Your task to perform on an android device: turn on data saver in the chrome app Image 0: 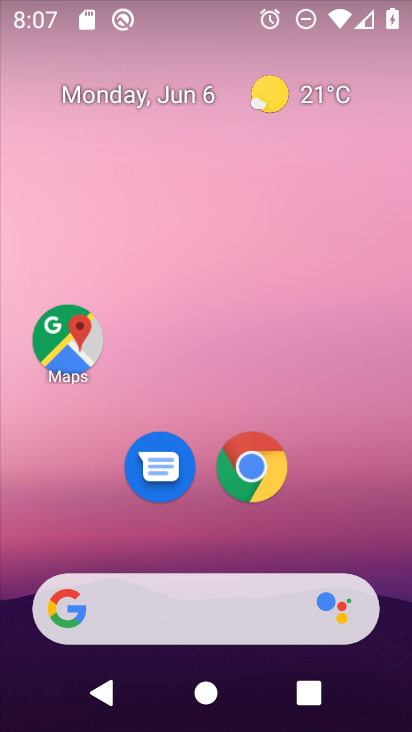
Step 0: drag from (356, 500) to (359, 199)
Your task to perform on an android device: turn on data saver in the chrome app Image 1: 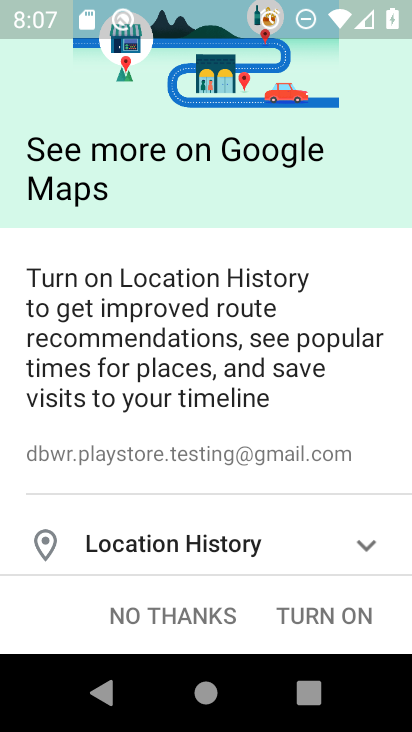
Step 1: press home button
Your task to perform on an android device: turn on data saver in the chrome app Image 2: 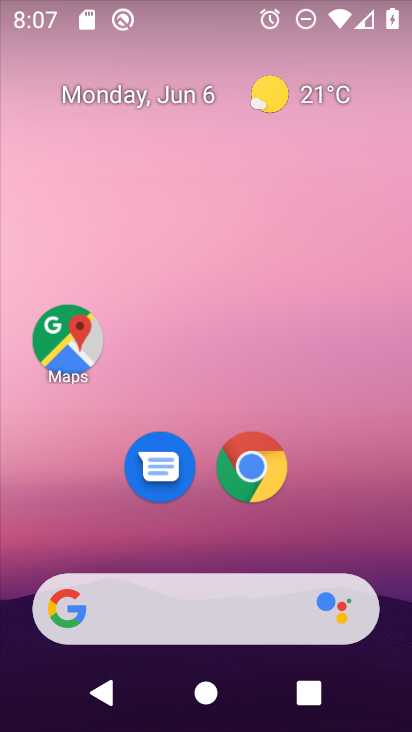
Step 2: drag from (375, 538) to (371, 125)
Your task to perform on an android device: turn on data saver in the chrome app Image 3: 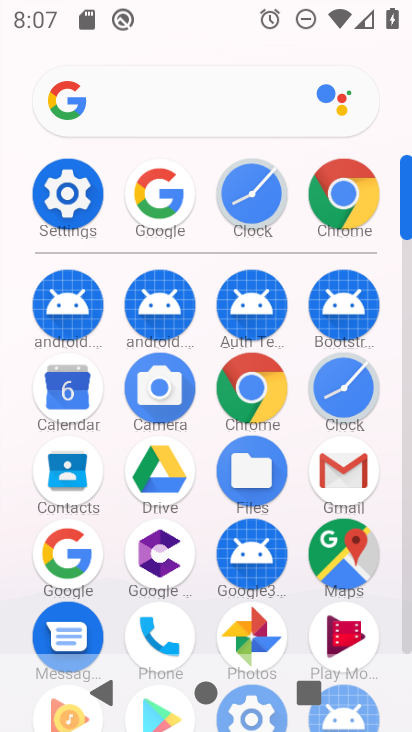
Step 3: click (265, 397)
Your task to perform on an android device: turn on data saver in the chrome app Image 4: 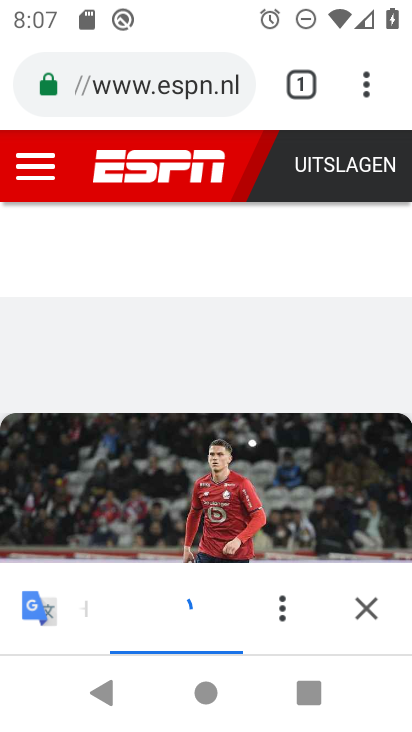
Step 4: click (366, 98)
Your task to perform on an android device: turn on data saver in the chrome app Image 5: 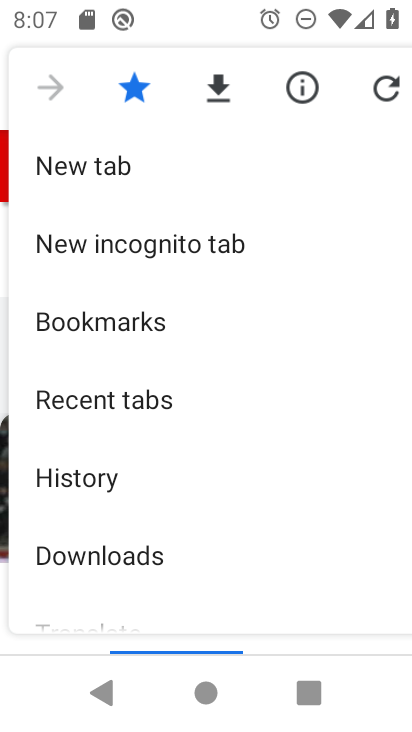
Step 5: drag from (349, 476) to (345, 376)
Your task to perform on an android device: turn on data saver in the chrome app Image 6: 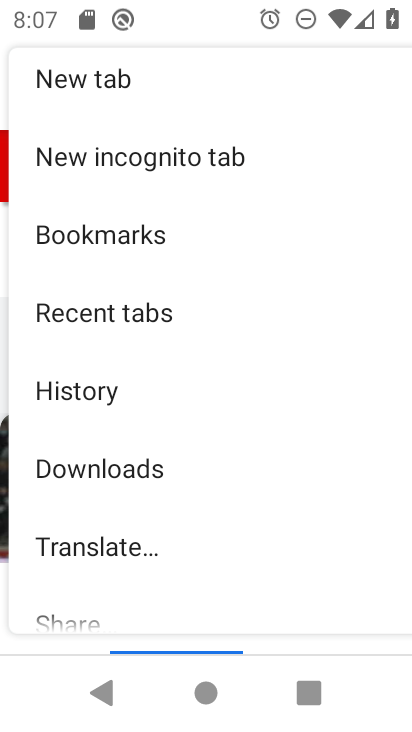
Step 6: drag from (331, 467) to (311, 365)
Your task to perform on an android device: turn on data saver in the chrome app Image 7: 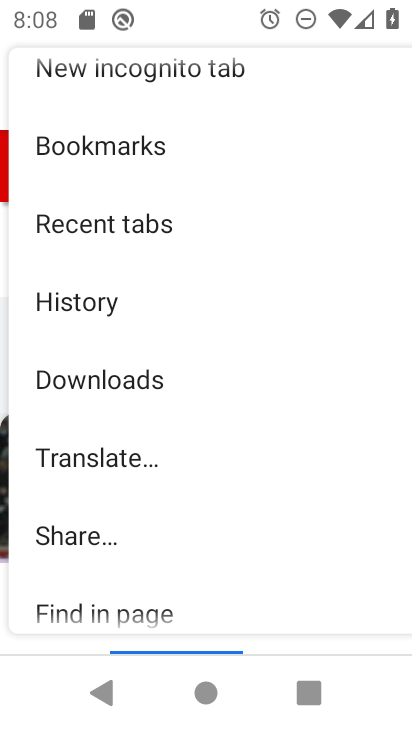
Step 7: drag from (336, 490) to (365, 311)
Your task to perform on an android device: turn on data saver in the chrome app Image 8: 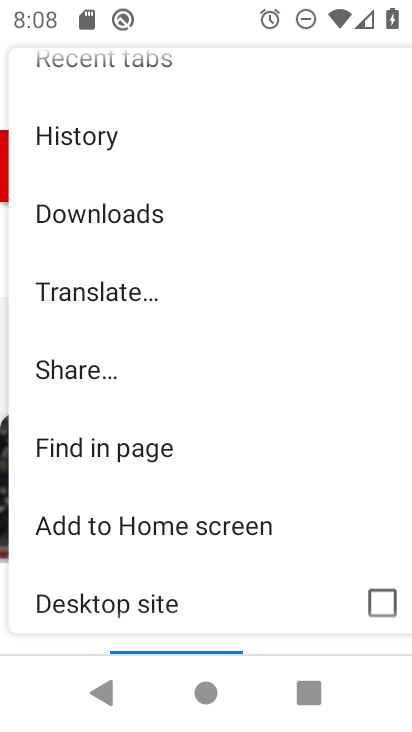
Step 8: drag from (337, 463) to (359, 305)
Your task to perform on an android device: turn on data saver in the chrome app Image 9: 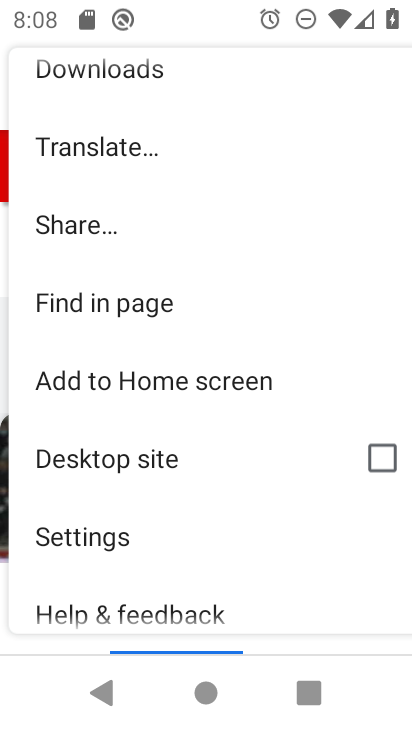
Step 9: drag from (303, 518) to (315, 368)
Your task to perform on an android device: turn on data saver in the chrome app Image 10: 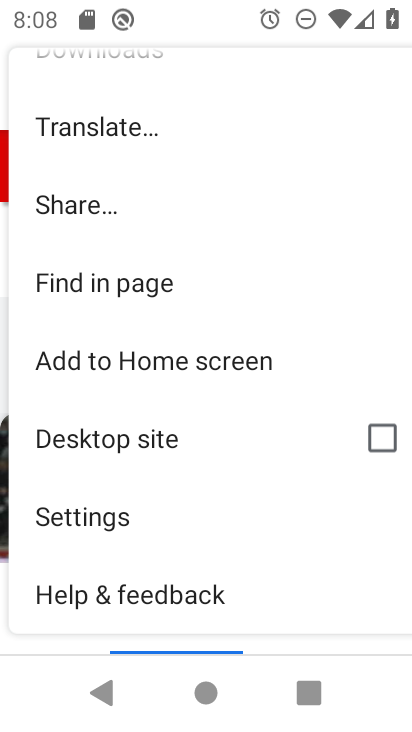
Step 10: click (182, 524)
Your task to perform on an android device: turn on data saver in the chrome app Image 11: 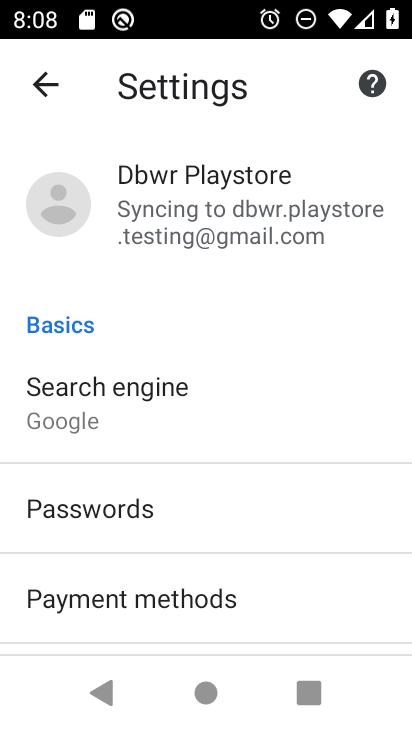
Step 11: drag from (319, 490) to (338, 360)
Your task to perform on an android device: turn on data saver in the chrome app Image 12: 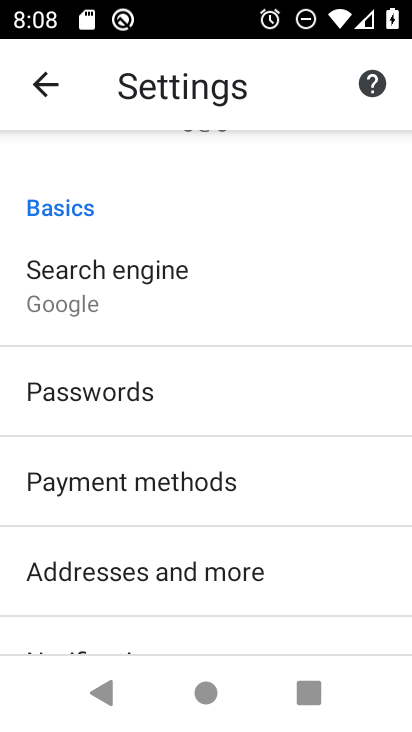
Step 12: drag from (328, 492) to (343, 326)
Your task to perform on an android device: turn on data saver in the chrome app Image 13: 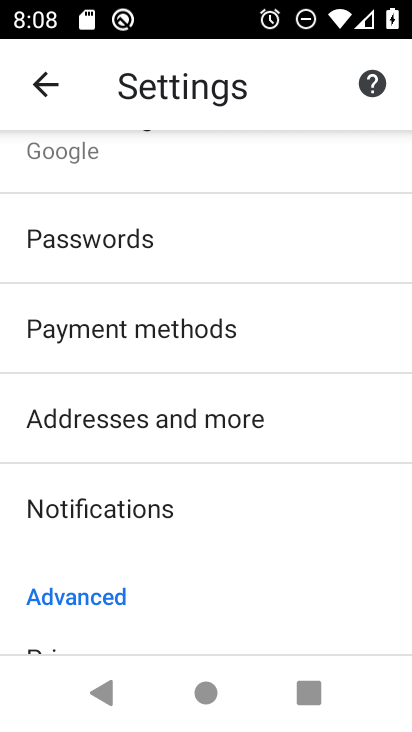
Step 13: drag from (335, 449) to (329, 360)
Your task to perform on an android device: turn on data saver in the chrome app Image 14: 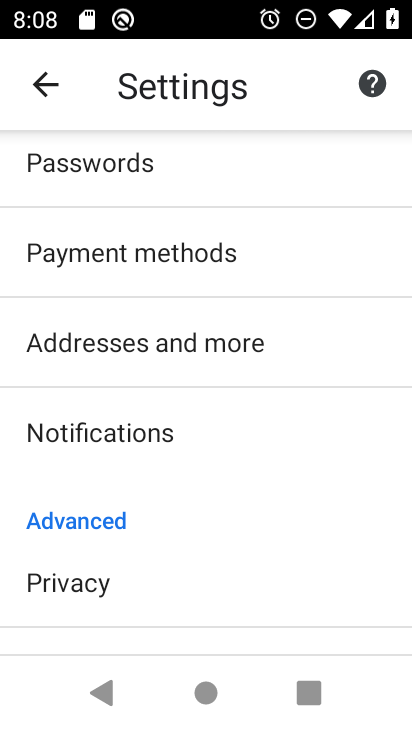
Step 14: drag from (343, 519) to (337, 388)
Your task to perform on an android device: turn on data saver in the chrome app Image 15: 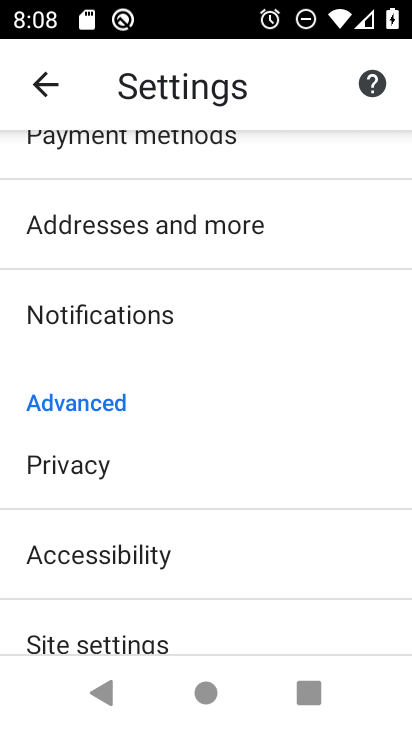
Step 15: drag from (317, 556) to (309, 388)
Your task to perform on an android device: turn on data saver in the chrome app Image 16: 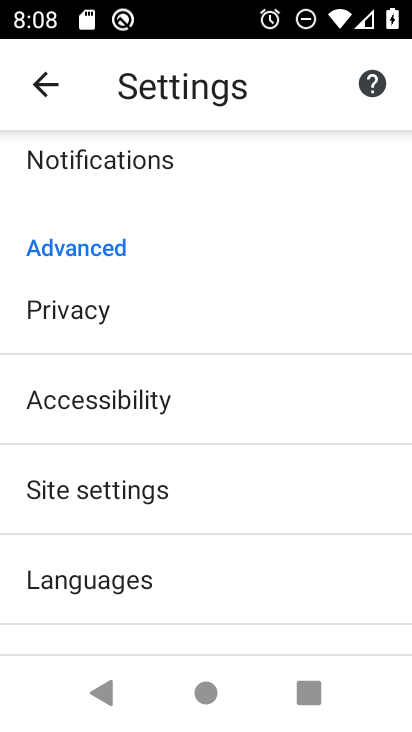
Step 16: drag from (241, 607) to (244, 364)
Your task to perform on an android device: turn on data saver in the chrome app Image 17: 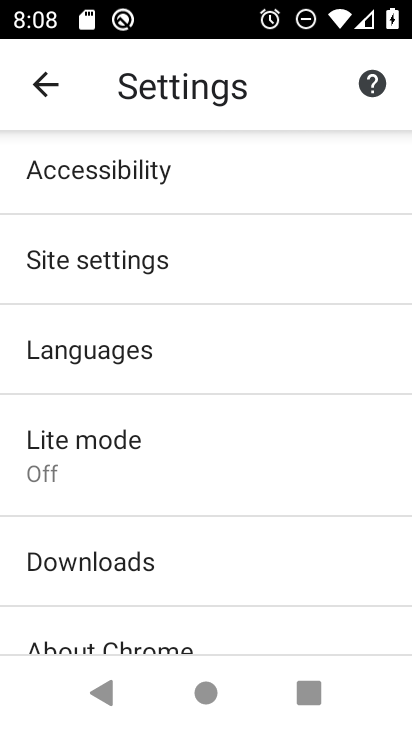
Step 17: click (181, 471)
Your task to perform on an android device: turn on data saver in the chrome app Image 18: 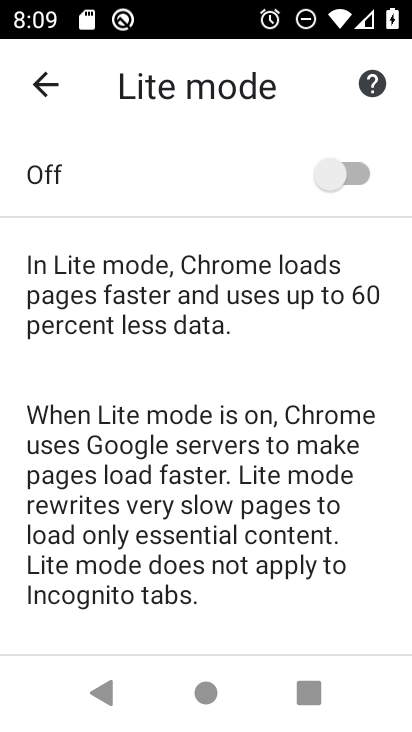
Step 18: click (335, 181)
Your task to perform on an android device: turn on data saver in the chrome app Image 19: 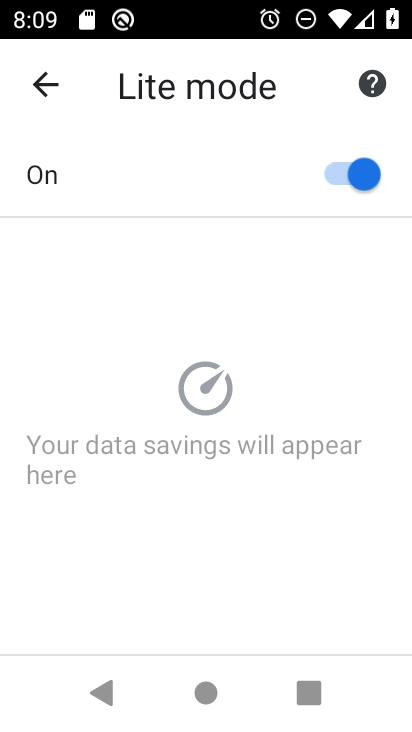
Step 19: task complete